Your task to perform on an android device: Open the web browser Image 0: 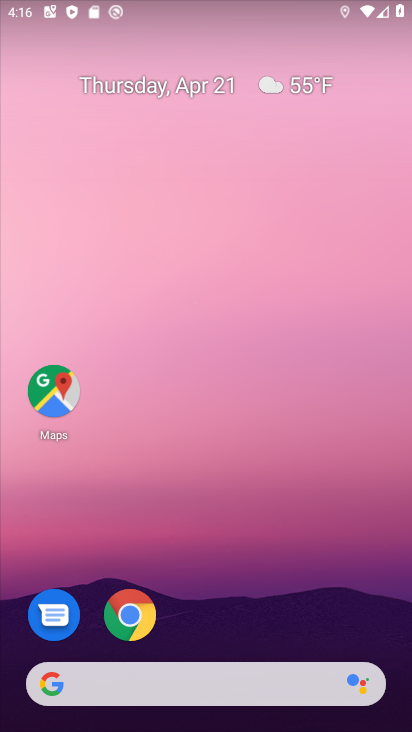
Step 0: click (200, 673)
Your task to perform on an android device: Open the web browser Image 1: 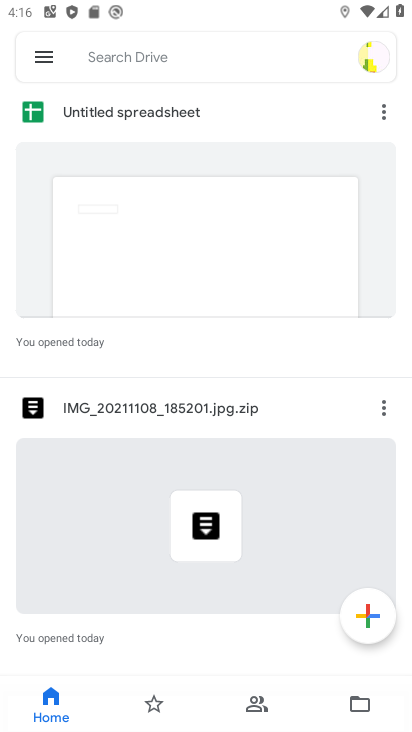
Step 1: press home button
Your task to perform on an android device: Open the web browser Image 2: 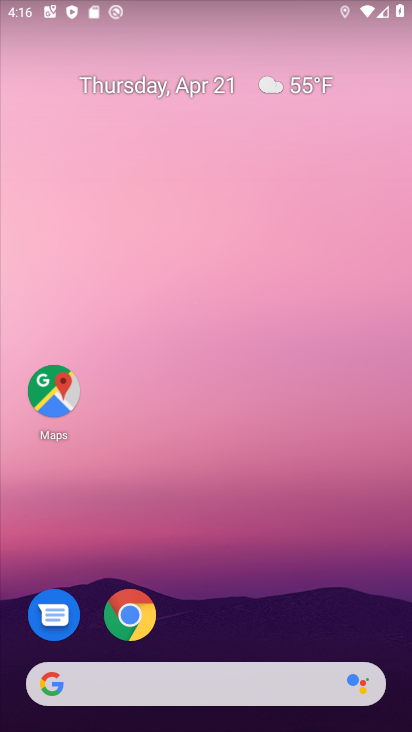
Step 2: click (129, 625)
Your task to perform on an android device: Open the web browser Image 3: 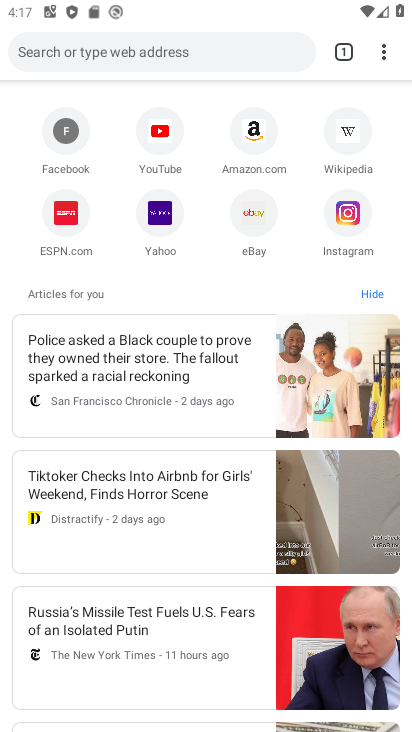
Step 3: task complete